Your task to perform on an android device: Go to battery settings Image 0: 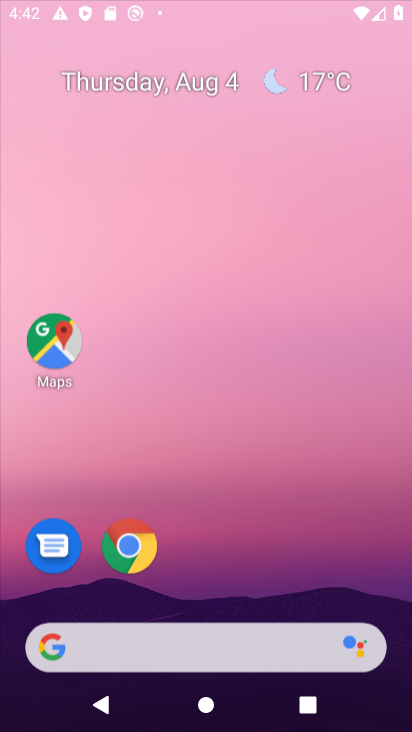
Step 0: click (172, 202)
Your task to perform on an android device: Go to battery settings Image 1: 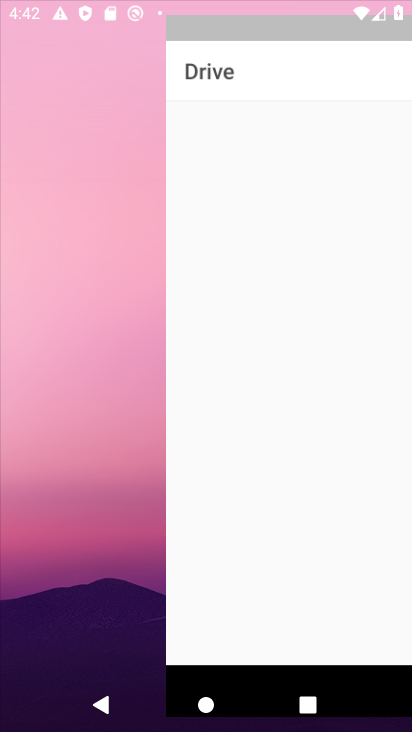
Step 1: drag from (206, 591) to (262, 22)
Your task to perform on an android device: Go to battery settings Image 2: 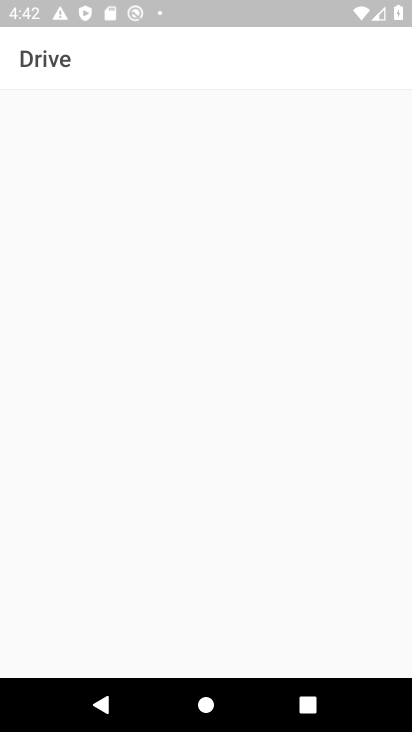
Step 2: press home button
Your task to perform on an android device: Go to battery settings Image 3: 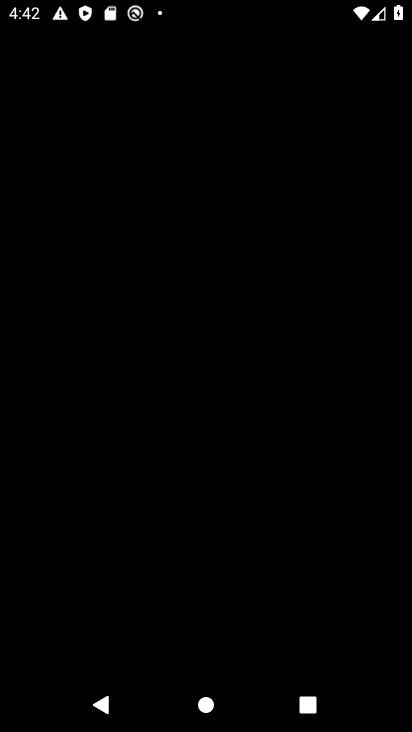
Step 3: drag from (262, 22) to (410, 554)
Your task to perform on an android device: Go to battery settings Image 4: 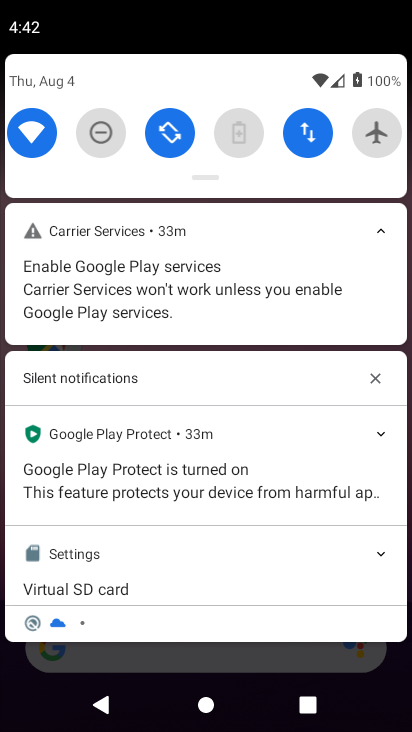
Step 4: press home button
Your task to perform on an android device: Go to battery settings Image 5: 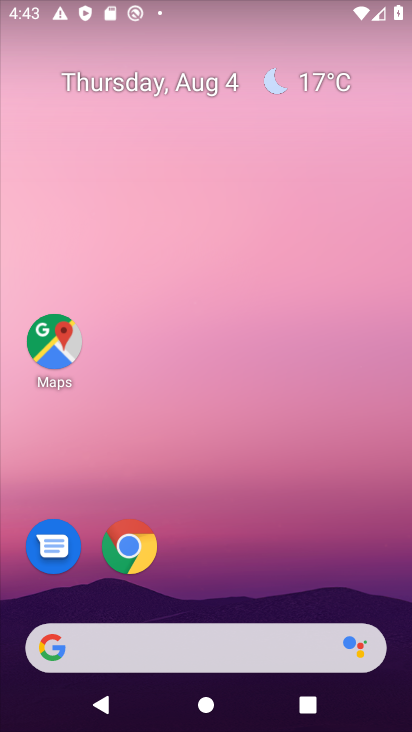
Step 5: drag from (212, 512) to (169, 8)
Your task to perform on an android device: Go to battery settings Image 6: 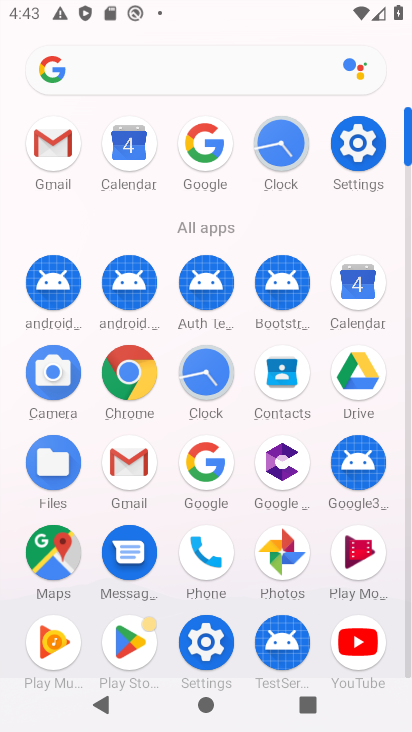
Step 6: click (354, 134)
Your task to perform on an android device: Go to battery settings Image 7: 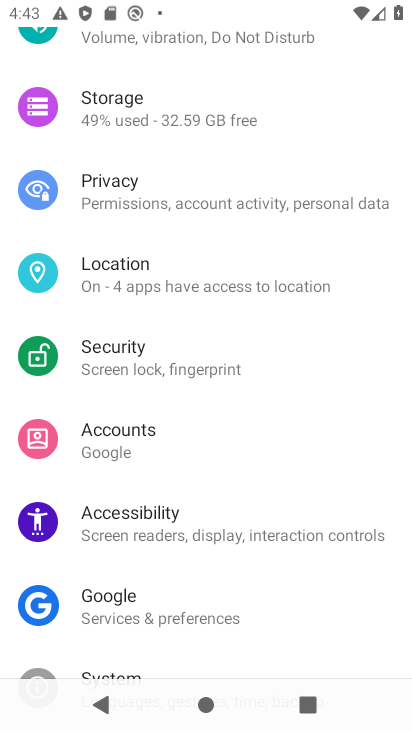
Step 7: drag from (203, 315) to (173, 580)
Your task to perform on an android device: Go to battery settings Image 8: 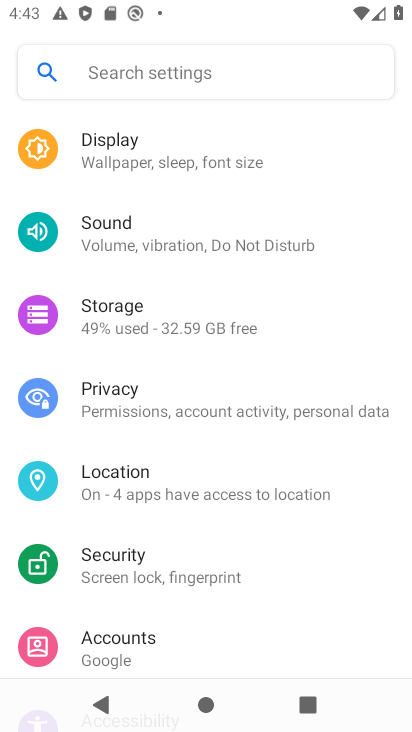
Step 8: drag from (184, 233) to (80, 715)
Your task to perform on an android device: Go to battery settings Image 9: 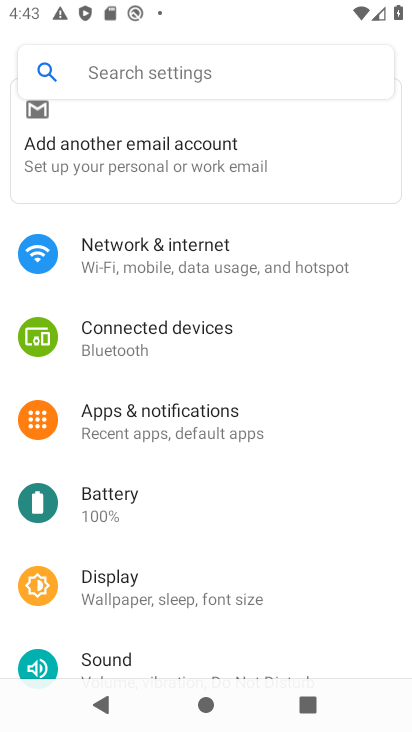
Step 9: drag from (125, 603) to (177, 319)
Your task to perform on an android device: Go to battery settings Image 10: 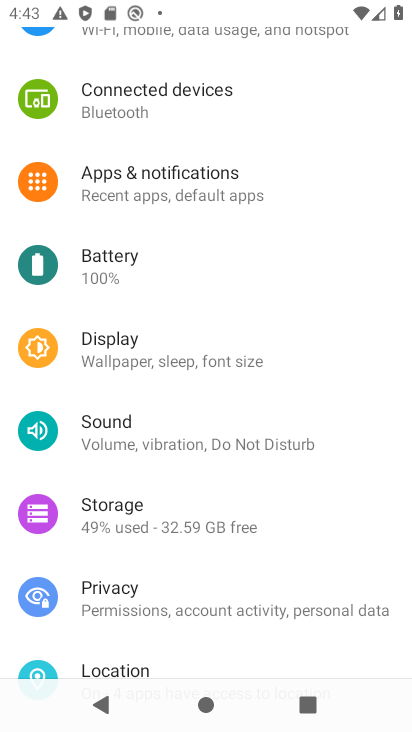
Step 10: drag from (121, 557) to (165, 322)
Your task to perform on an android device: Go to battery settings Image 11: 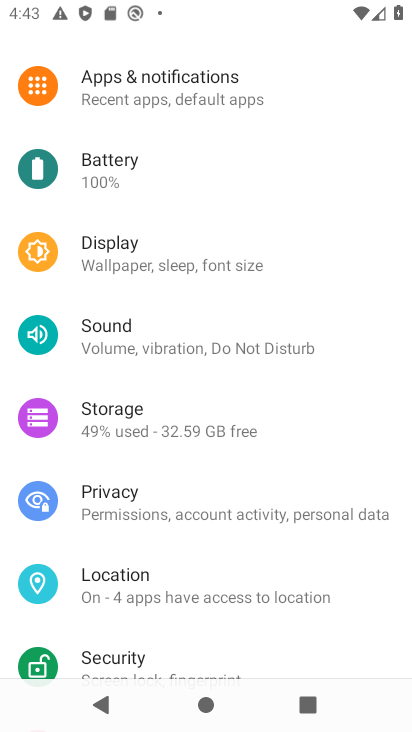
Step 11: click (104, 182)
Your task to perform on an android device: Go to battery settings Image 12: 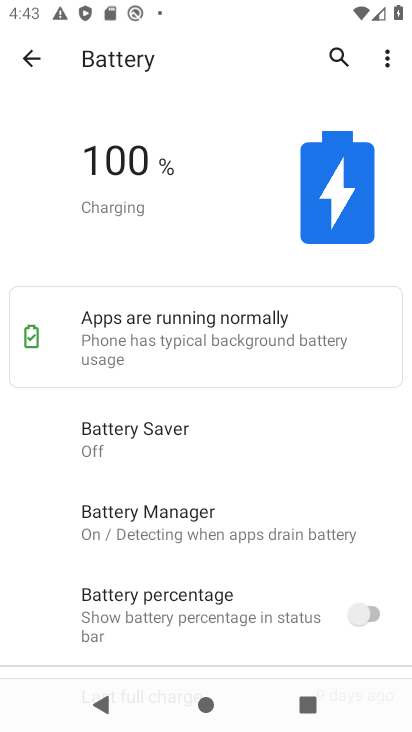
Step 12: task complete